Your task to perform on an android device: Open the stopwatch Image 0: 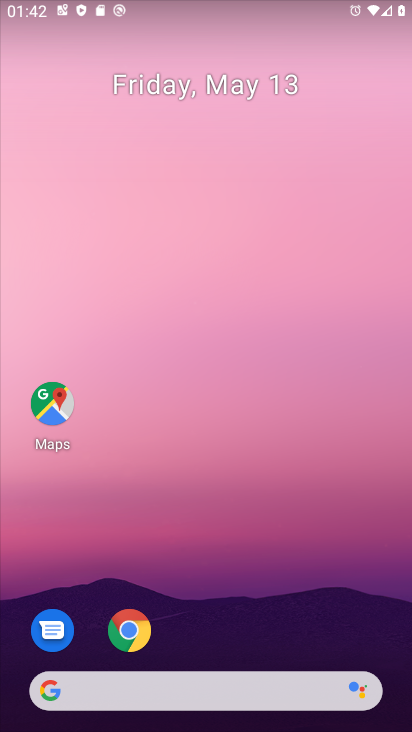
Step 0: drag from (302, 724) to (227, 246)
Your task to perform on an android device: Open the stopwatch Image 1: 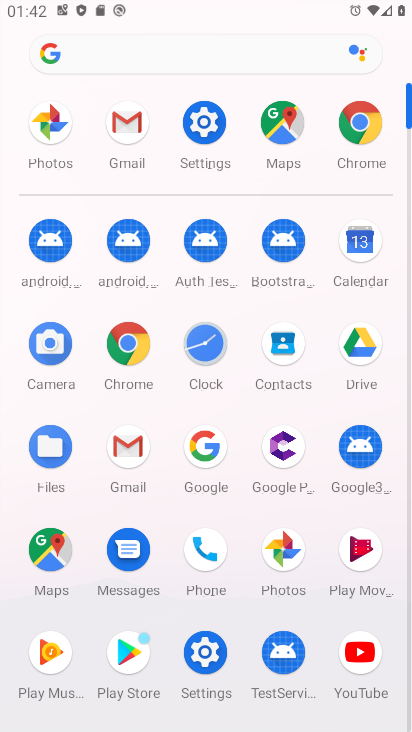
Step 1: click (214, 342)
Your task to perform on an android device: Open the stopwatch Image 2: 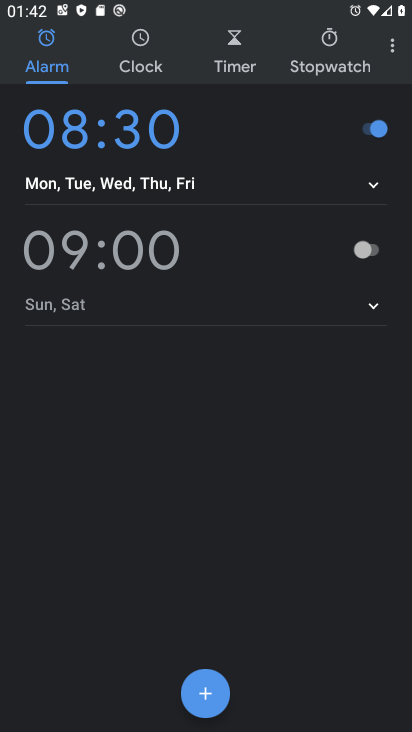
Step 2: click (322, 46)
Your task to perform on an android device: Open the stopwatch Image 3: 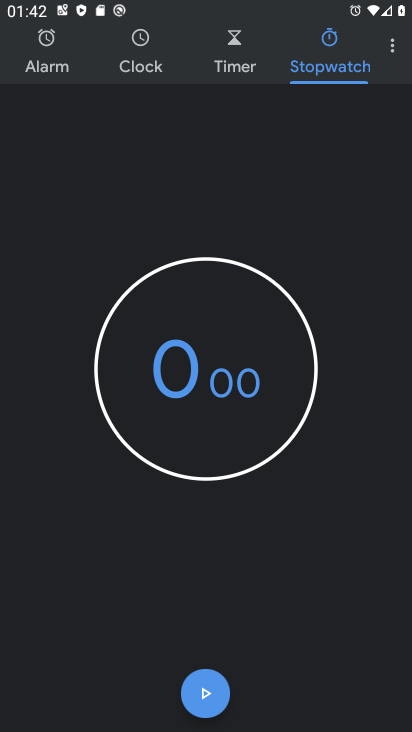
Step 3: task complete